Your task to perform on an android device: open app "Mercado Libre" (install if not already installed), go to login, and select forgot password Image 0: 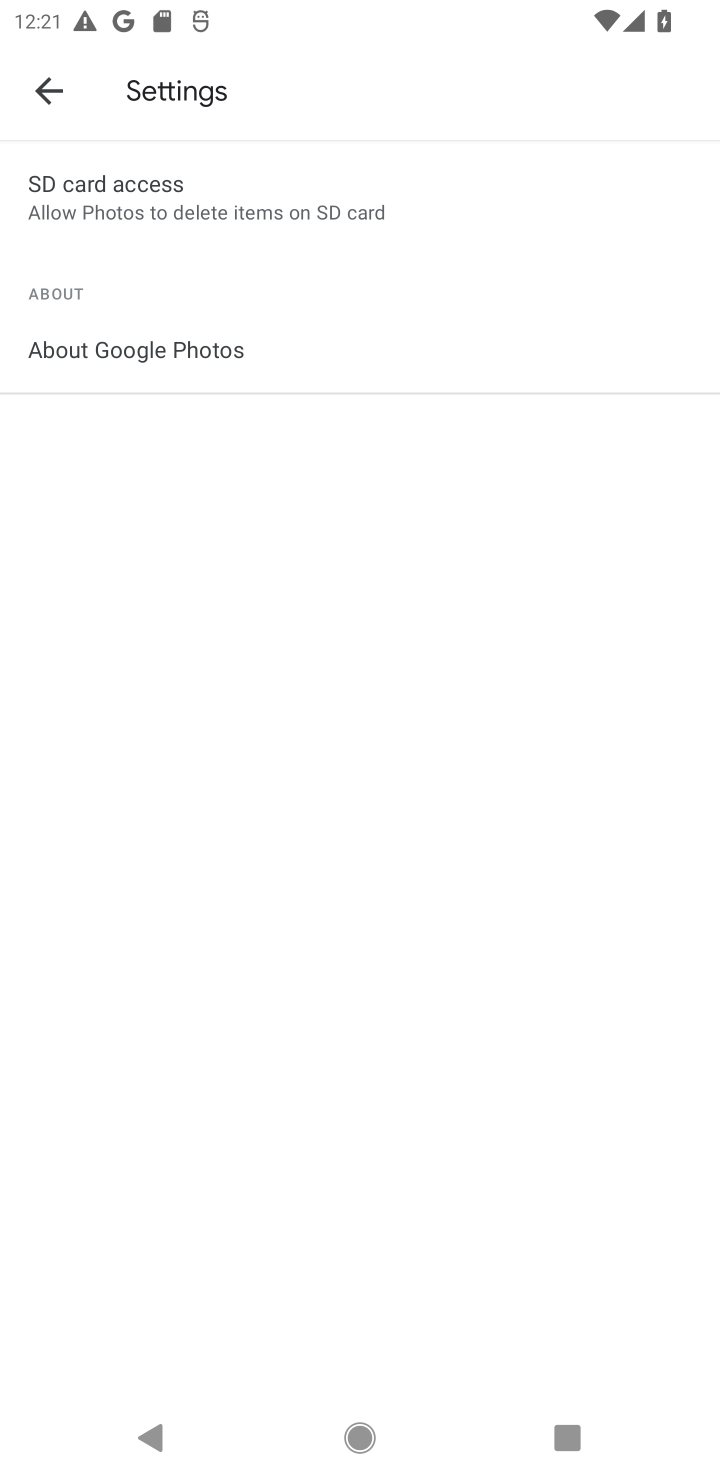
Step 0: press home button
Your task to perform on an android device: open app "Mercado Libre" (install if not already installed), go to login, and select forgot password Image 1: 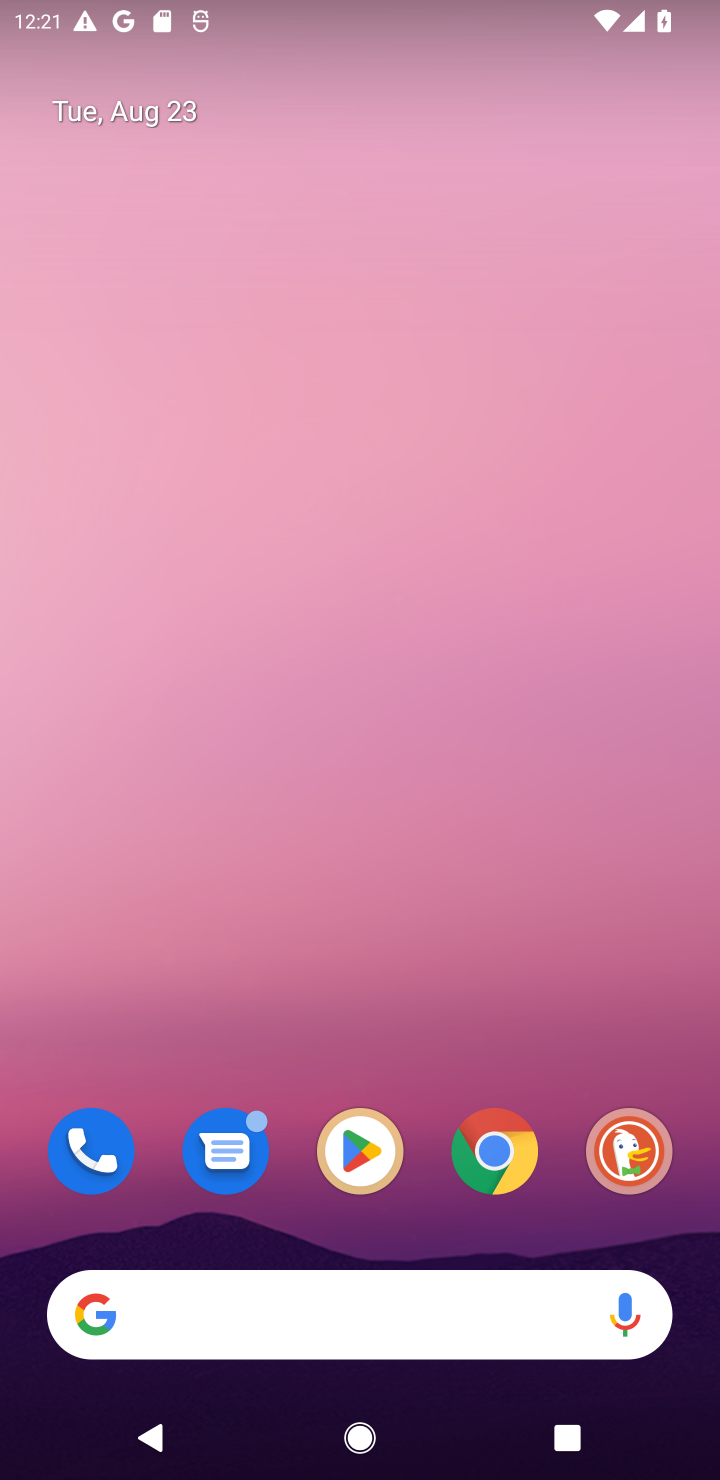
Step 1: click (332, 1108)
Your task to perform on an android device: open app "Mercado Libre" (install if not already installed), go to login, and select forgot password Image 2: 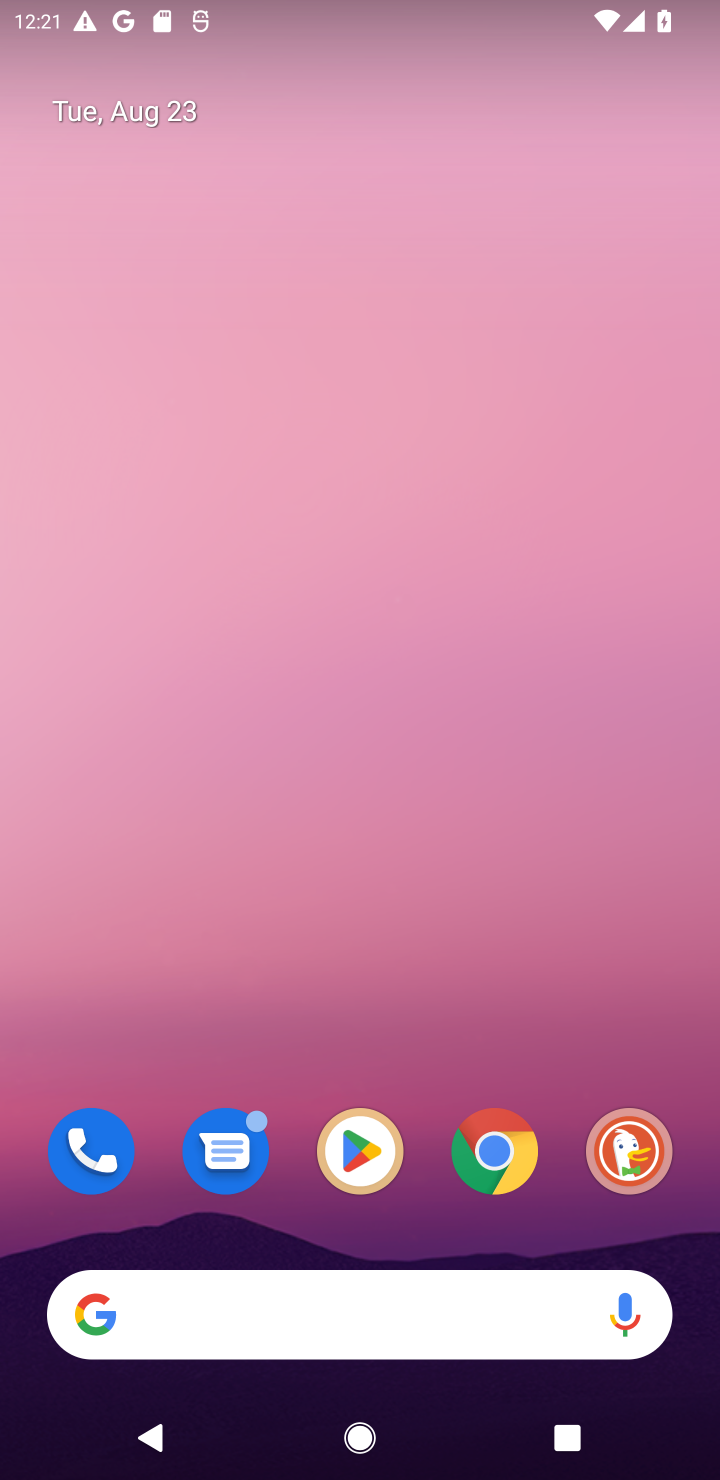
Step 2: click (376, 1136)
Your task to perform on an android device: open app "Mercado Libre" (install if not already installed), go to login, and select forgot password Image 3: 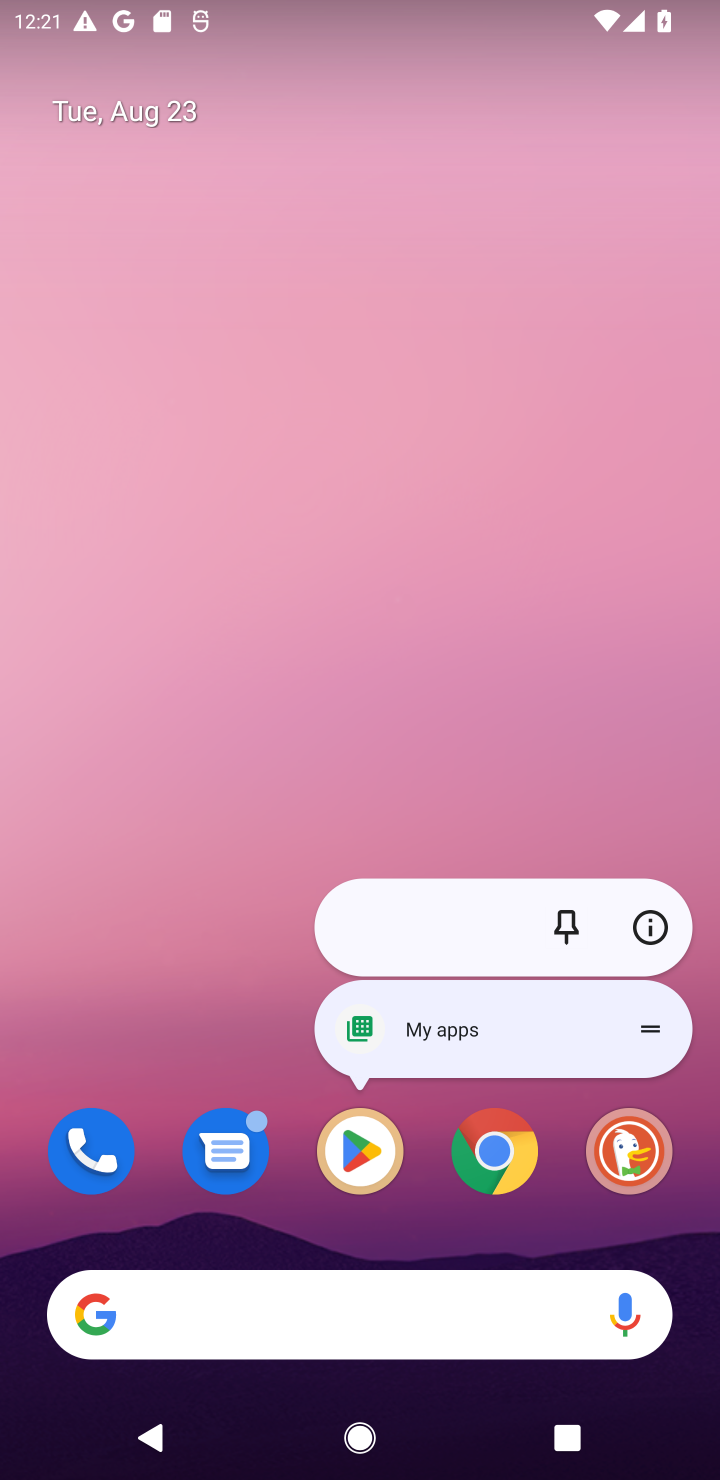
Step 3: click (355, 1177)
Your task to perform on an android device: open app "Mercado Libre" (install if not already installed), go to login, and select forgot password Image 4: 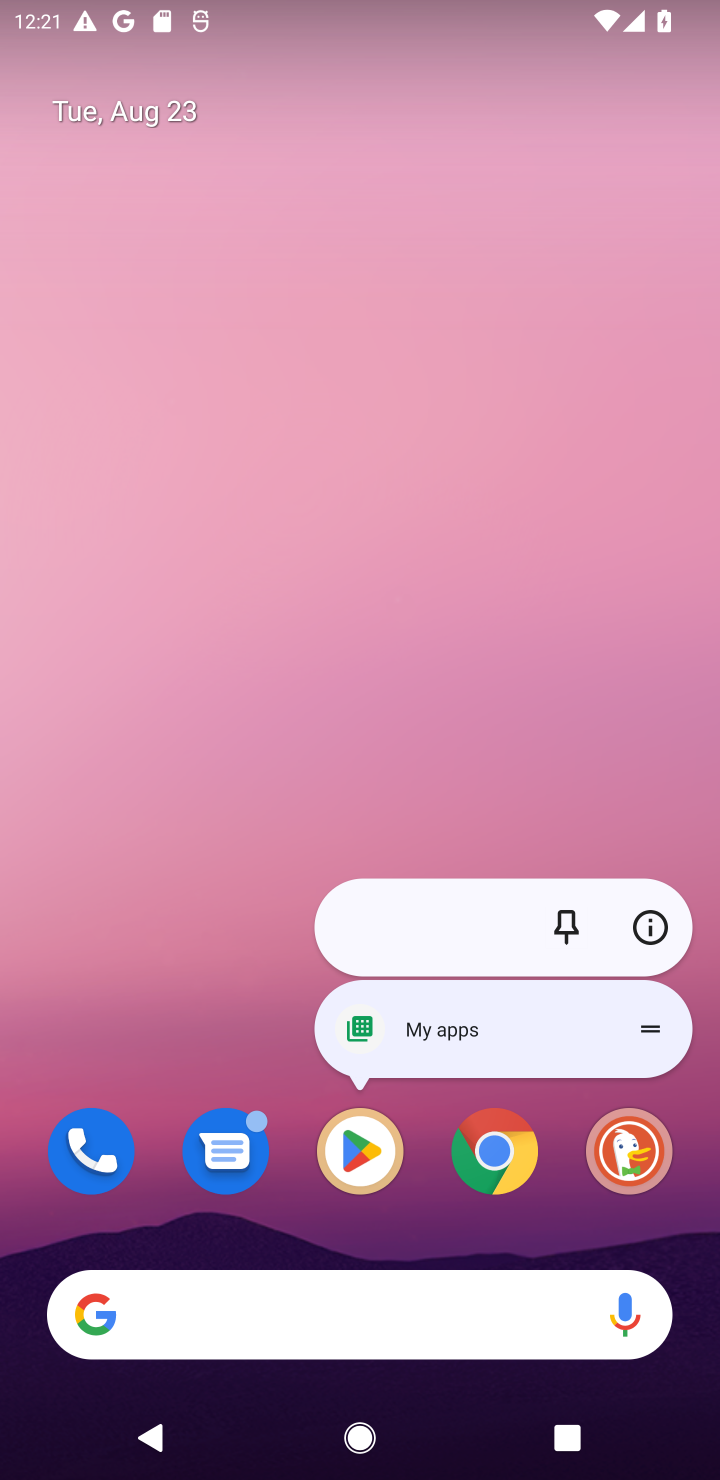
Step 4: click (355, 1177)
Your task to perform on an android device: open app "Mercado Libre" (install if not already installed), go to login, and select forgot password Image 5: 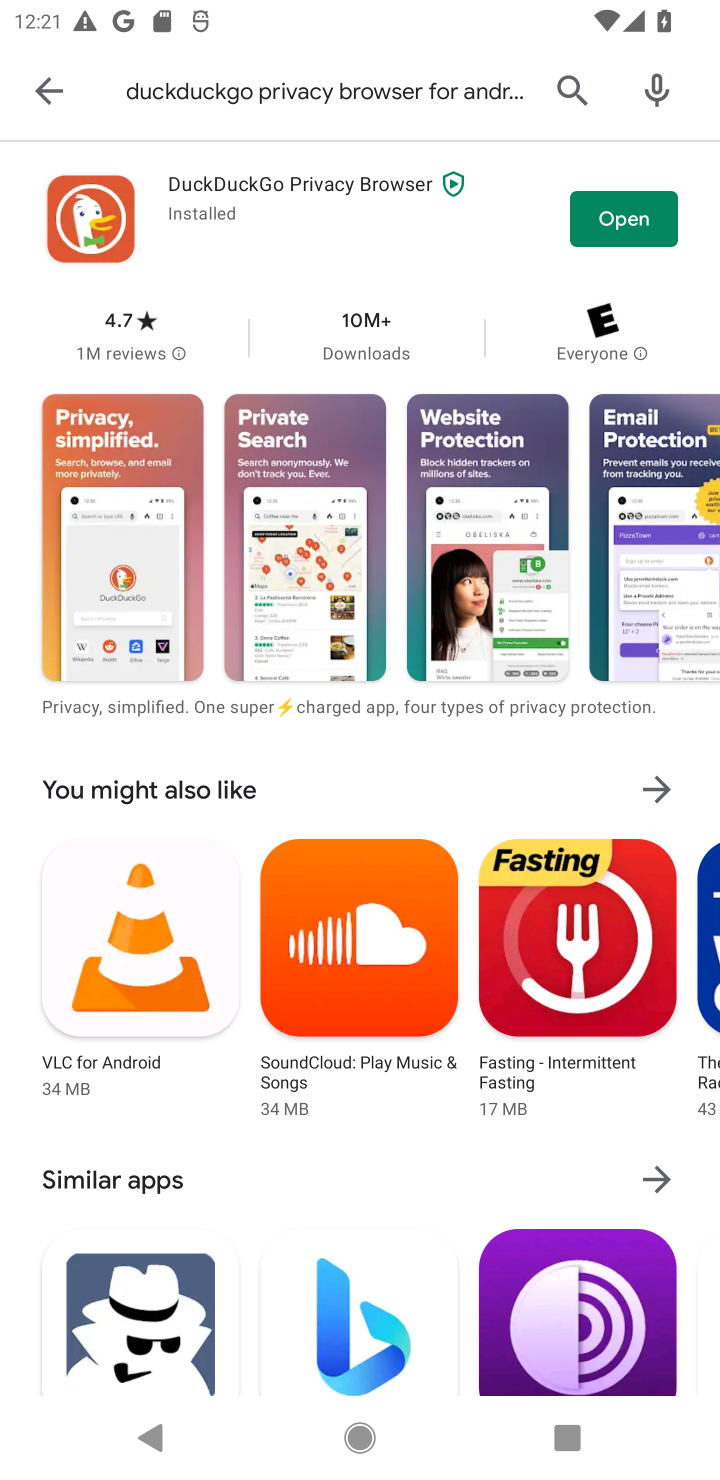
Step 5: click (574, 95)
Your task to perform on an android device: open app "Mercado Libre" (install if not already installed), go to login, and select forgot password Image 6: 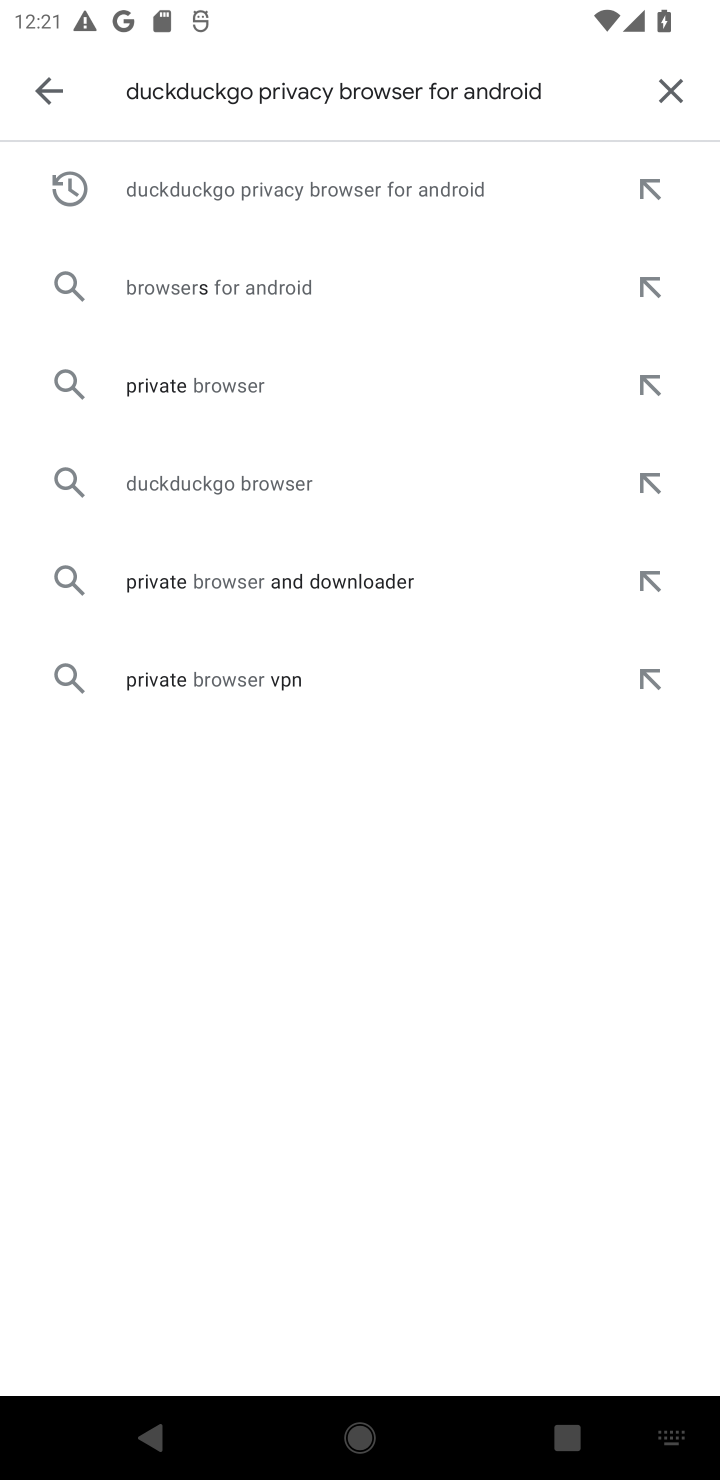
Step 6: click (667, 106)
Your task to perform on an android device: open app "Mercado Libre" (install if not already installed), go to login, and select forgot password Image 7: 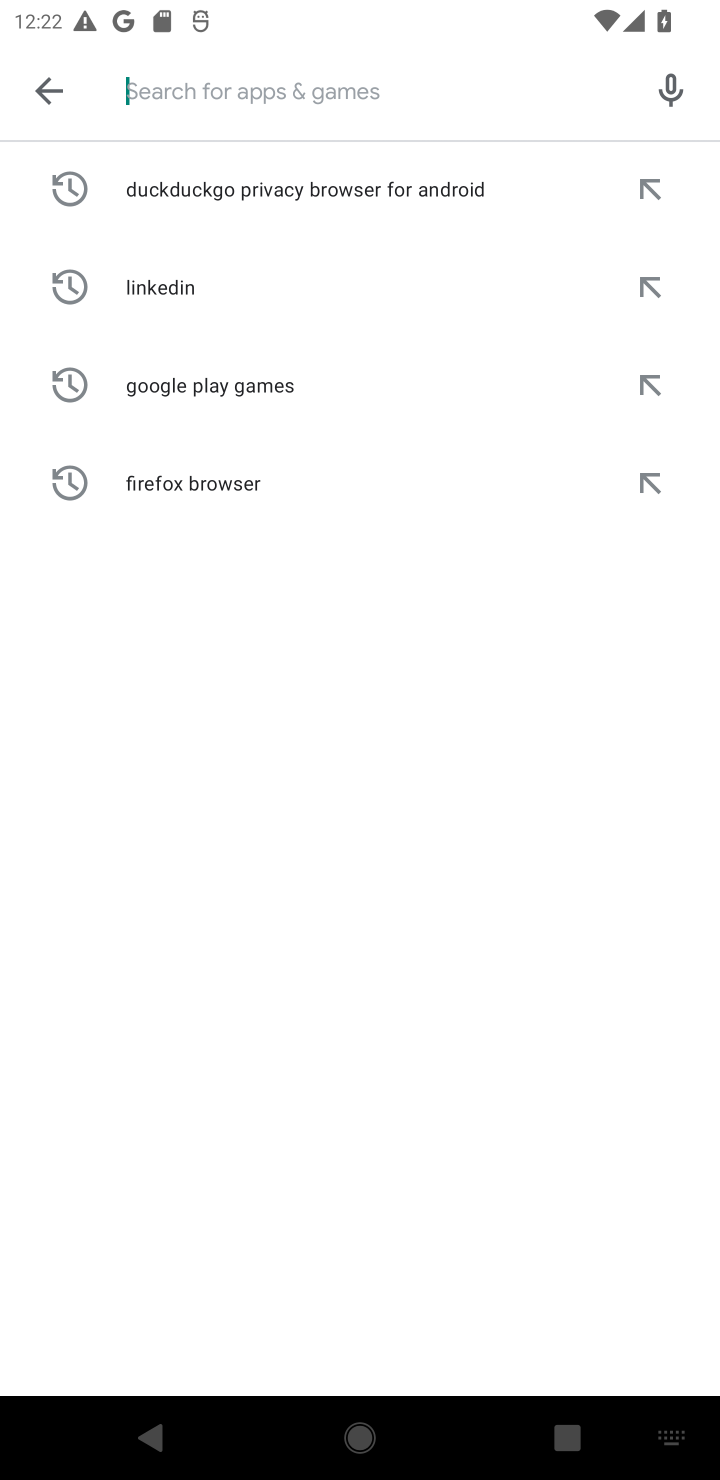
Step 7: type "Mercado Libre"
Your task to perform on an android device: open app "Mercado Libre" (install if not already installed), go to login, and select forgot password Image 8: 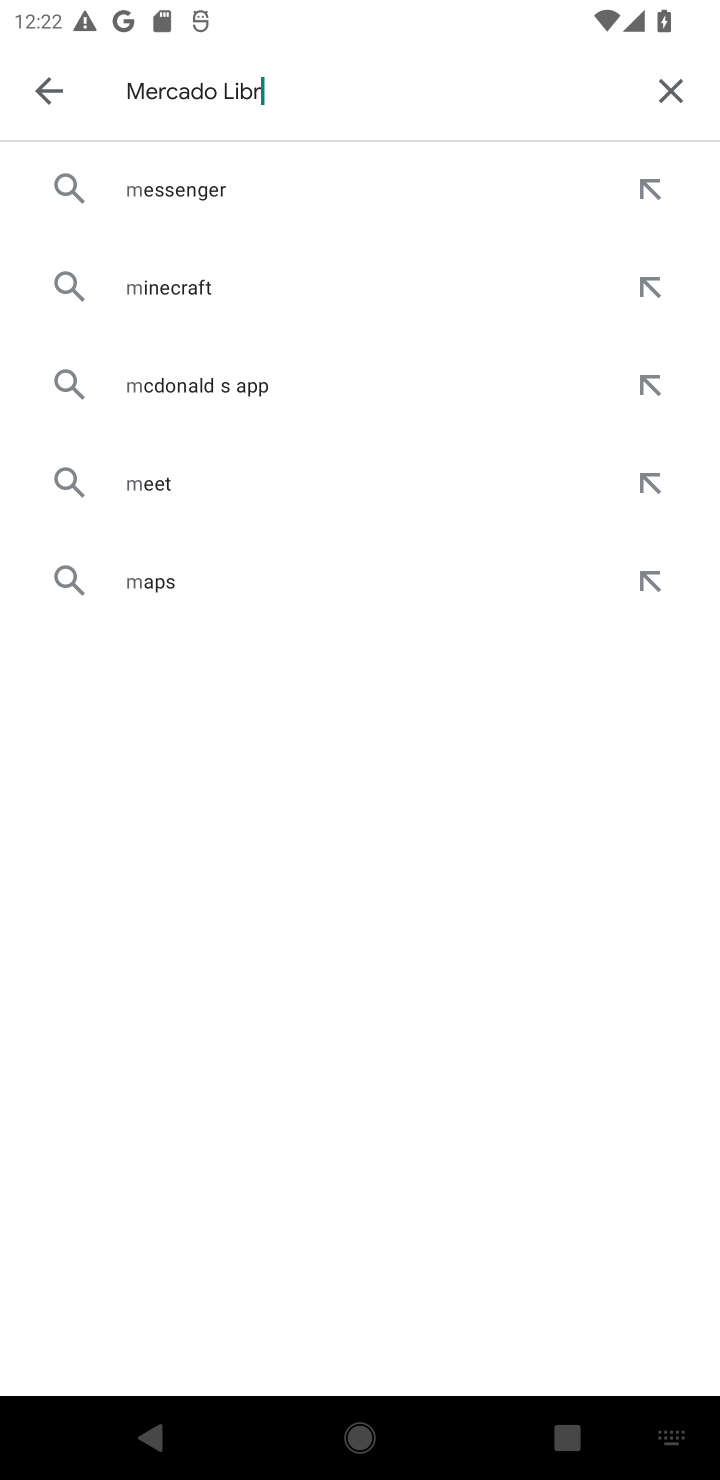
Step 8: type ""
Your task to perform on an android device: open app "Mercado Libre" (install if not already installed), go to login, and select forgot password Image 9: 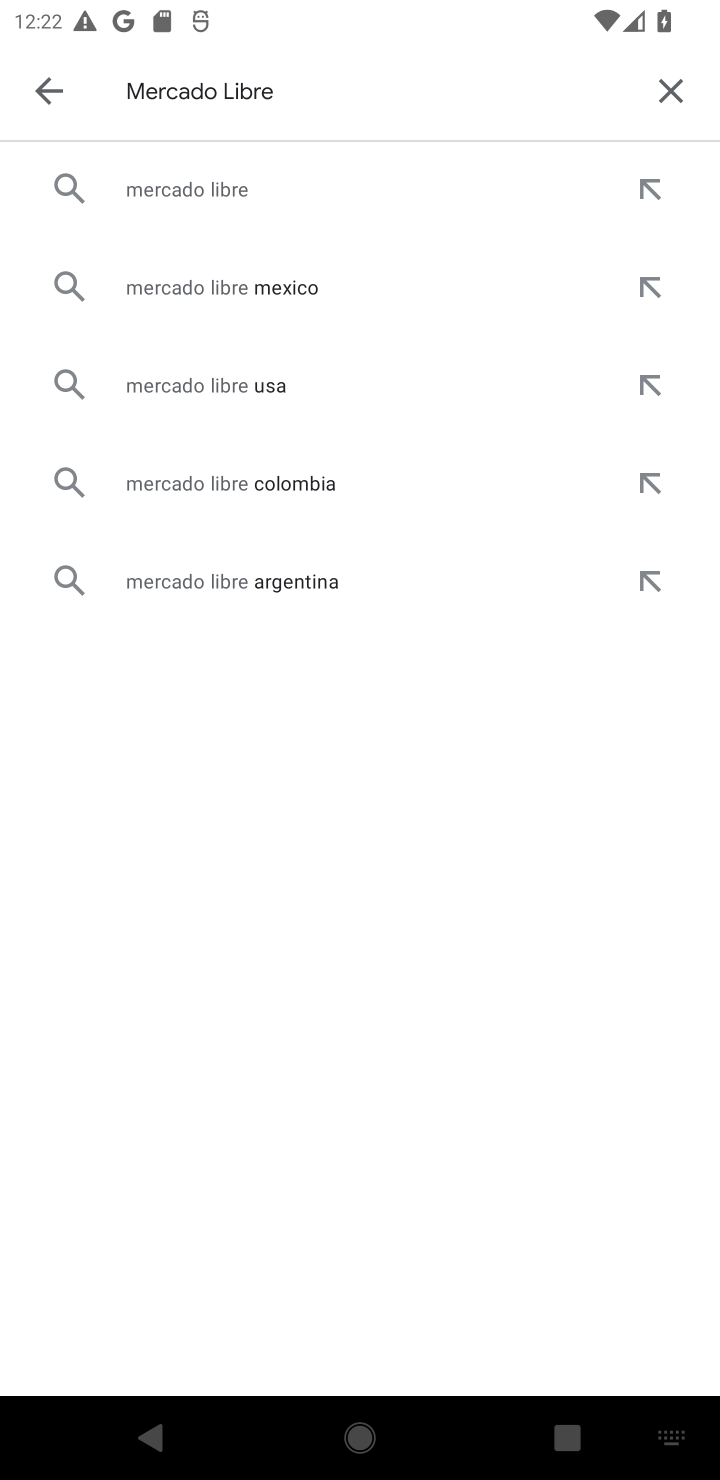
Step 9: click (329, 173)
Your task to perform on an android device: open app "Mercado Libre" (install if not already installed), go to login, and select forgot password Image 10: 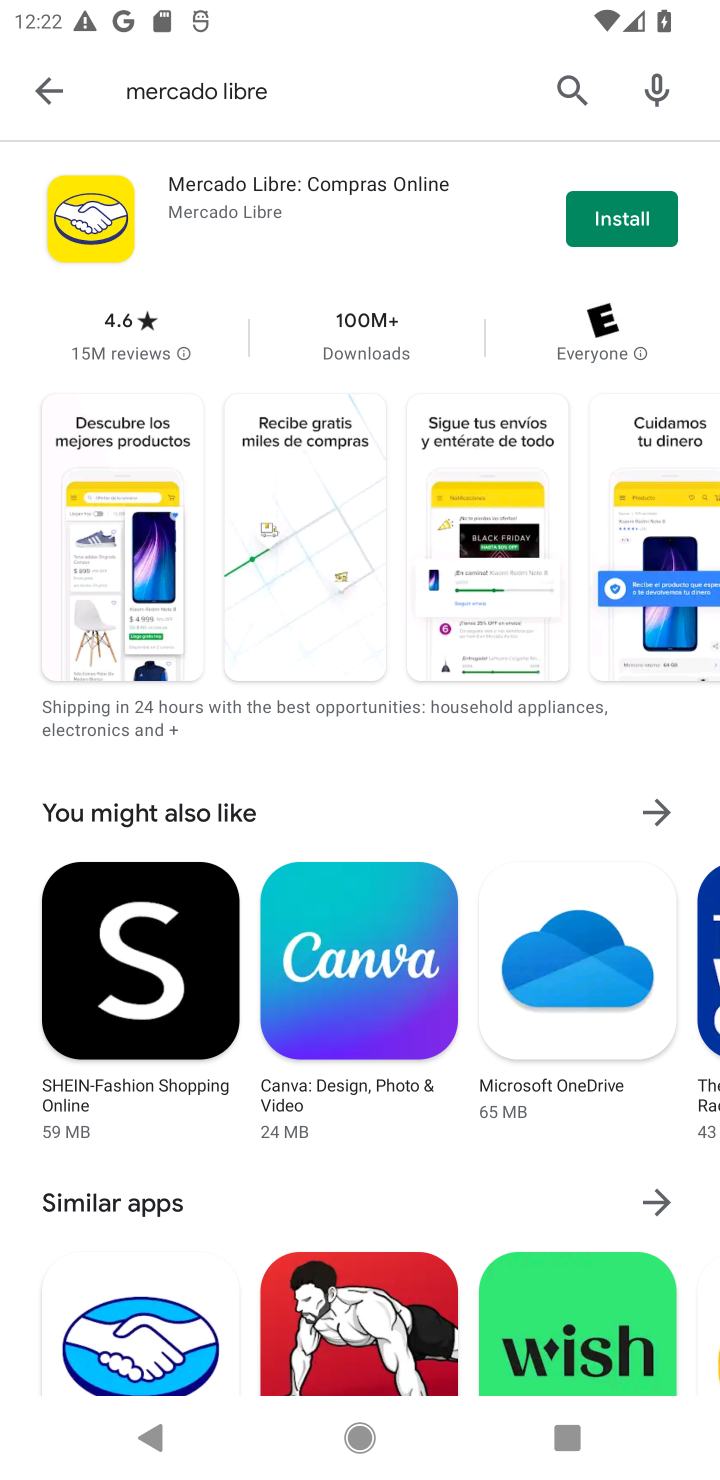
Step 10: click (599, 228)
Your task to perform on an android device: open app "Mercado Libre" (install if not already installed), go to login, and select forgot password Image 11: 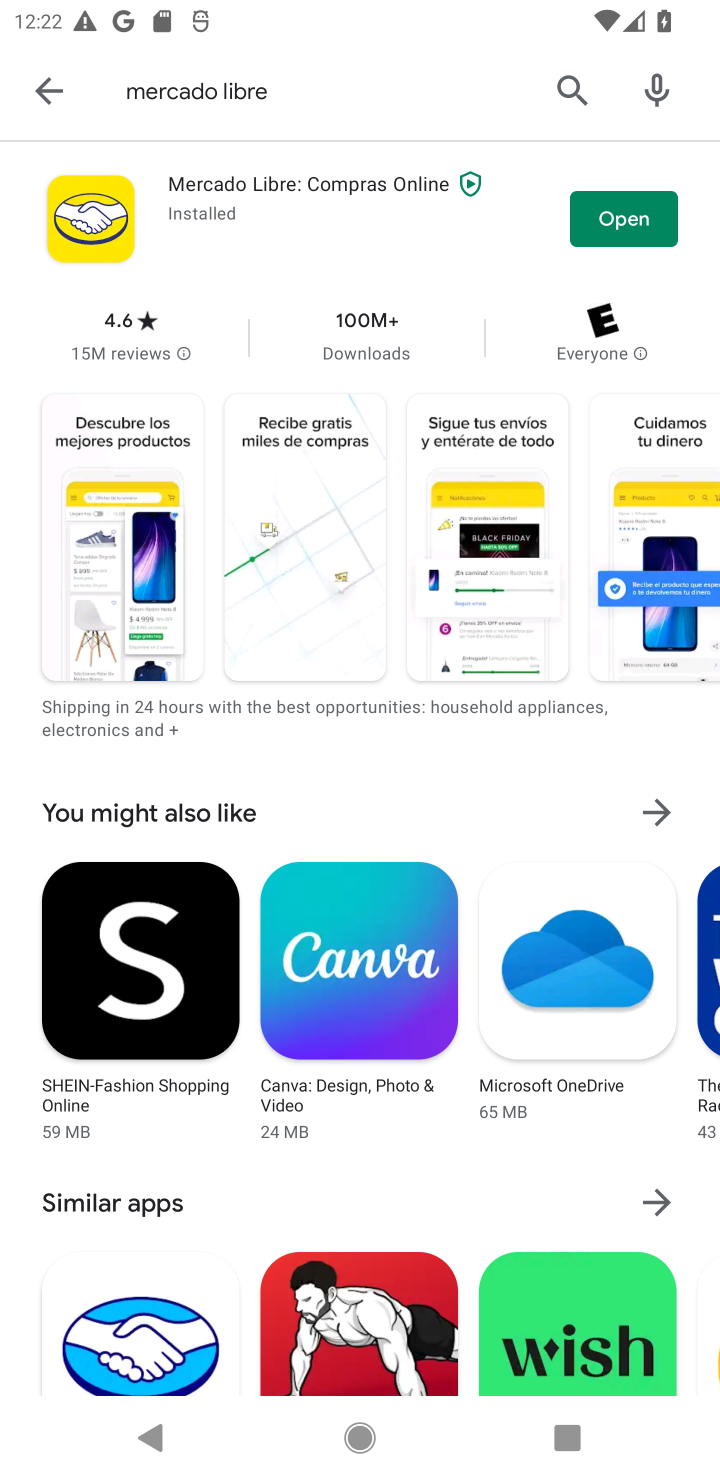
Step 11: click (607, 216)
Your task to perform on an android device: open app "Mercado Libre" (install if not already installed), go to login, and select forgot password Image 12: 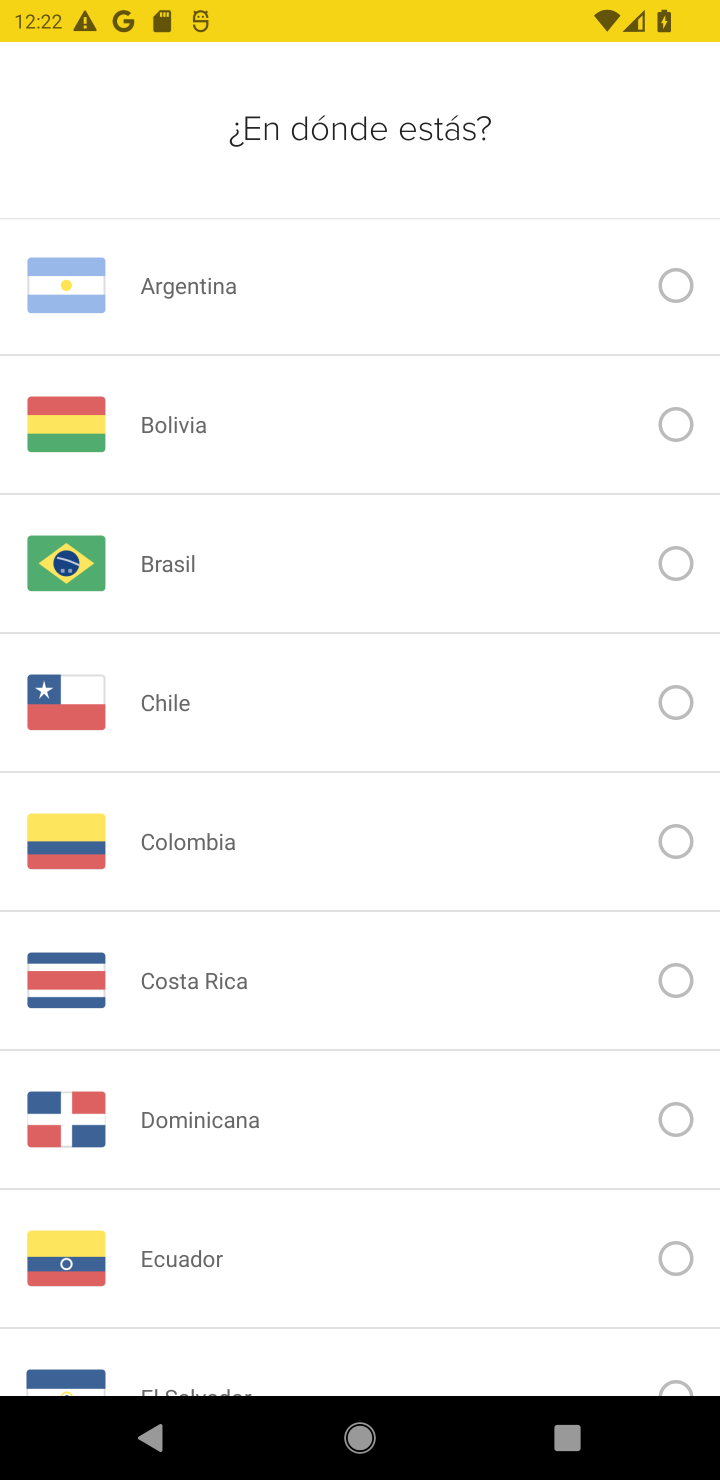
Step 12: task complete